Your task to perform on an android device: Open settings Image 0: 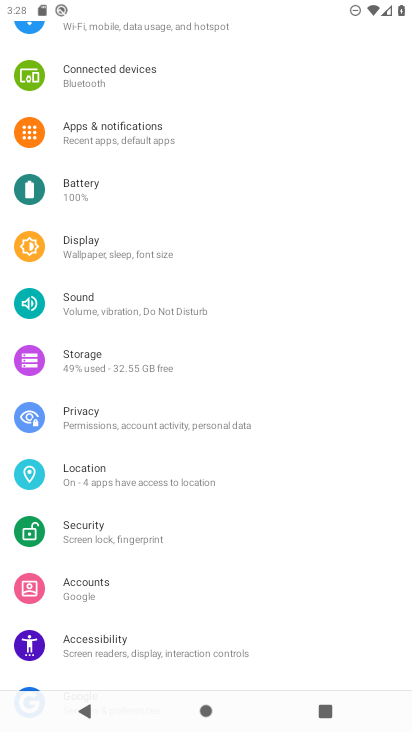
Step 0: task complete